Your task to perform on an android device: Is it going to rain this weekend? Image 0: 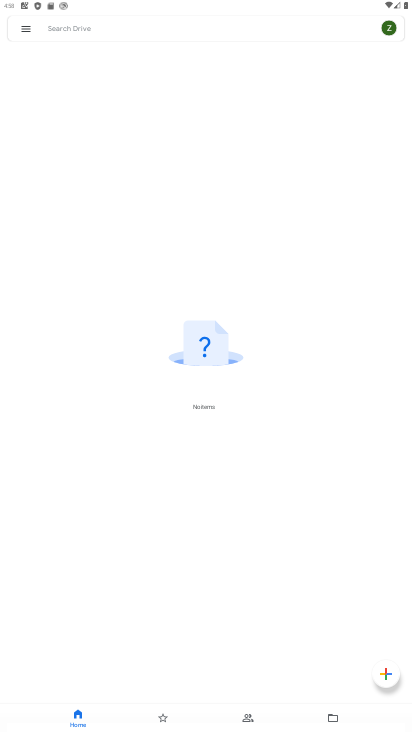
Step 0: press home button
Your task to perform on an android device: Is it going to rain this weekend? Image 1: 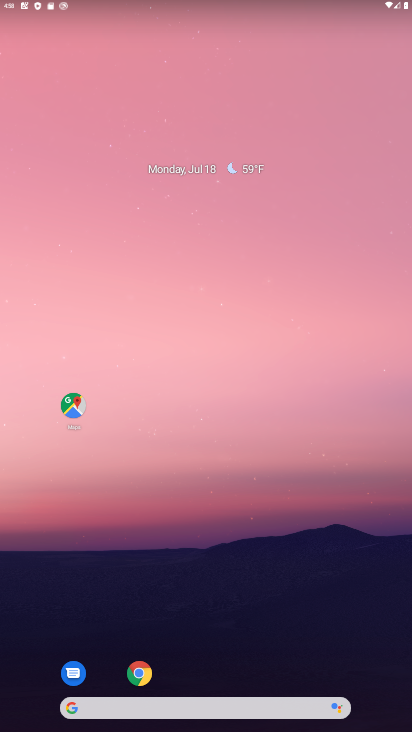
Step 1: drag from (282, 530) to (234, 67)
Your task to perform on an android device: Is it going to rain this weekend? Image 2: 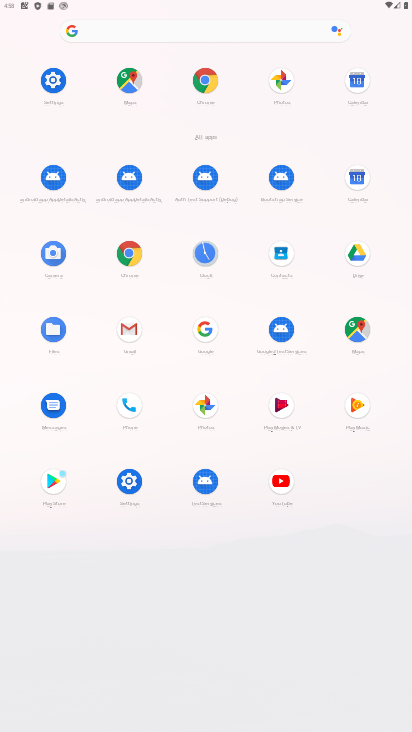
Step 2: click (201, 334)
Your task to perform on an android device: Is it going to rain this weekend? Image 3: 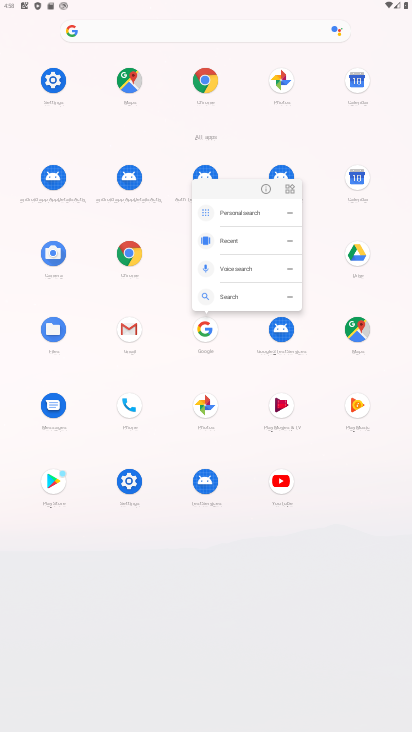
Step 3: click (201, 334)
Your task to perform on an android device: Is it going to rain this weekend? Image 4: 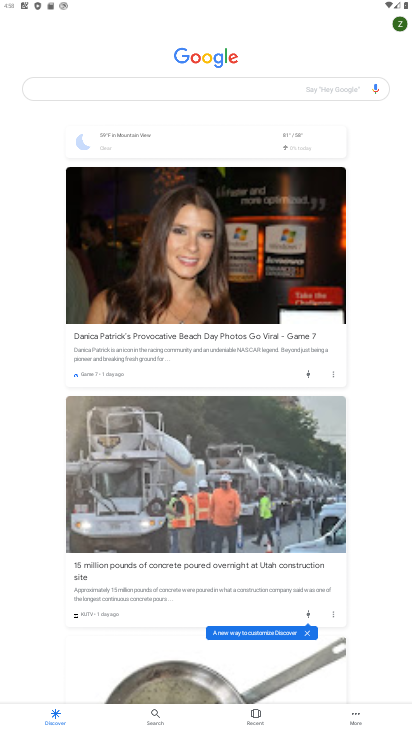
Step 4: click (158, 132)
Your task to perform on an android device: Is it going to rain this weekend? Image 5: 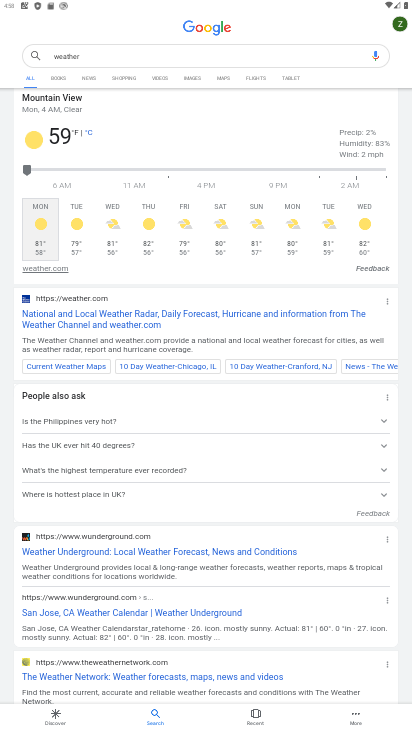
Step 5: task complete